Your task to perform on an android device: Check the news Image 0: 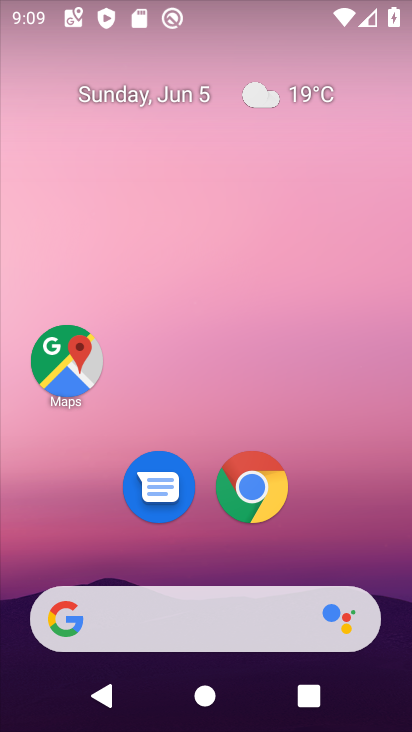
Step 0: drag from (6, 268) to (387, 238)
Your task to perform on an android device: Check the news Image 1: 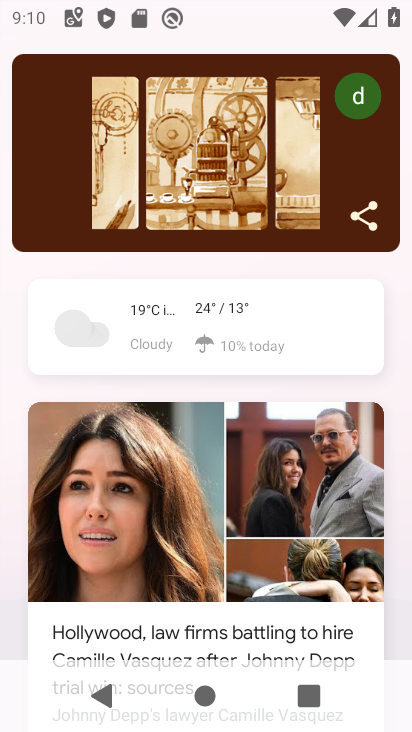
Step 1: task complete